Your task to perform on an android device: Open my contact list Image 0: 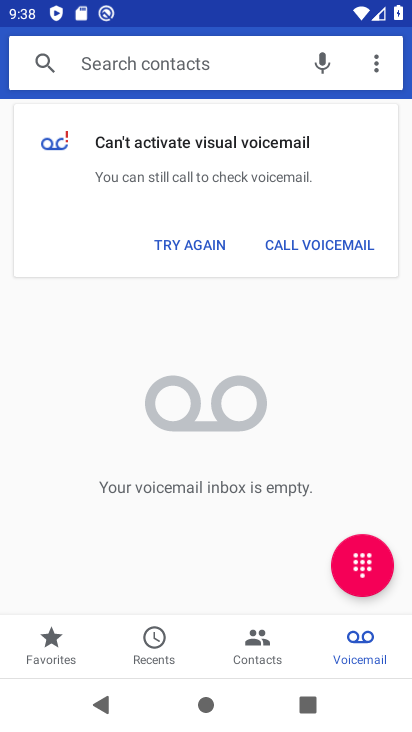
Step 0: click (264, 641)
Your task to perform on an android device: Open my contact list Image 1: 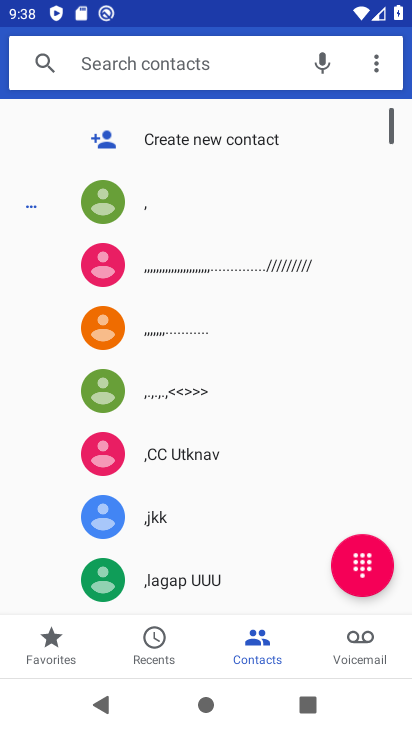
Step 1: task complete